Your task to perform on an android device: Open wifi settings Image 0: 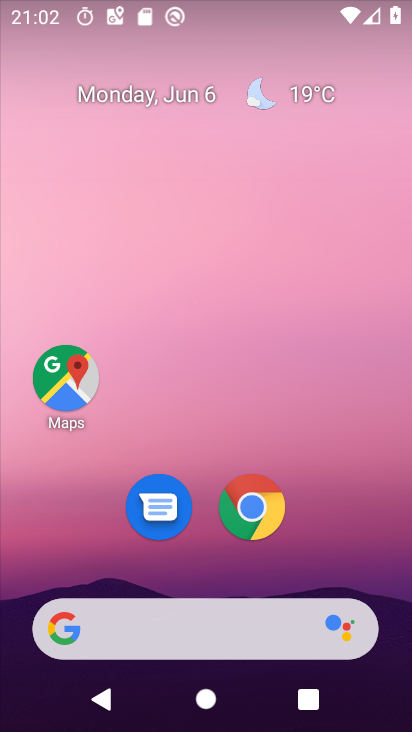
Step 0: press home button
Your task to perform on an android device: Open wifi settings Image 1: 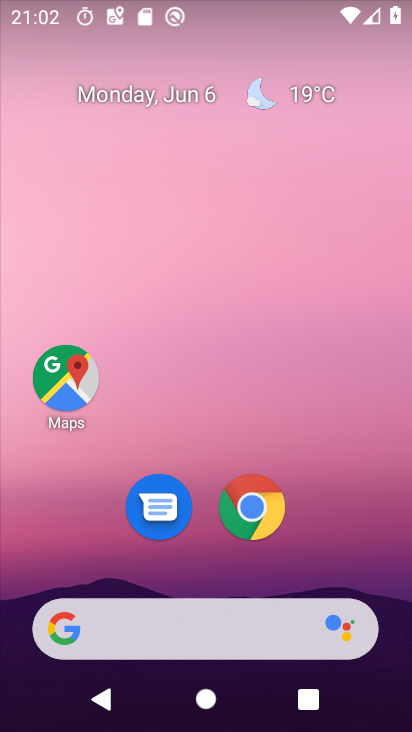
Step 1: drag from (292, 30) to (187, 579)
Your task to perform on an android device: Open wifi settings Image 2: 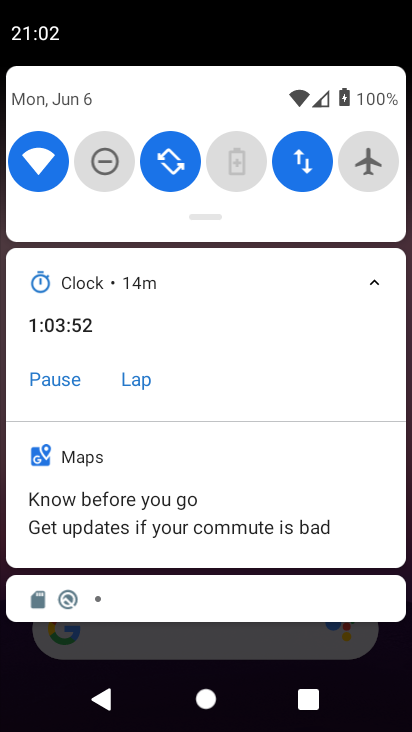
Step 2: click (40, 164)
Your task to perform on an android device: Open wifi settings Image 3: 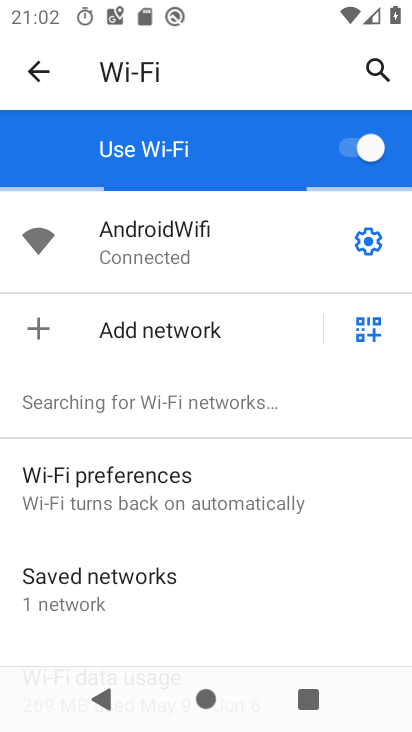
Step 3: task complete